Your task to perform on an android device: toggle wifi Image 0: 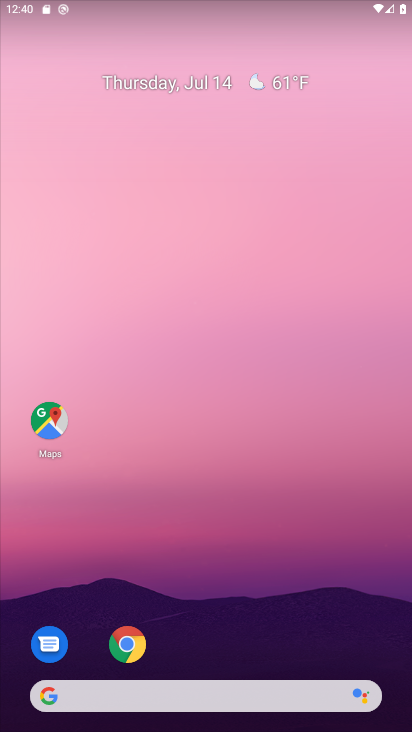
Step 0: drag from (268, 620) to (271, 83)
Your task to perform on an android device: toggle wifi Image 1: 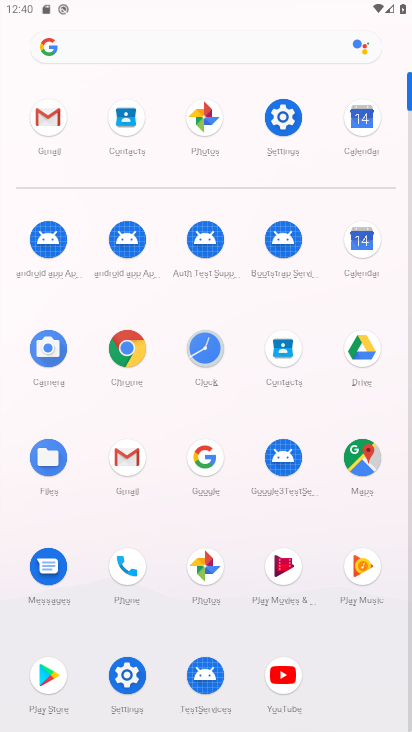
Step 1: click (279, 109)
Your task to perform on an android device: toggle wifi Image 2: 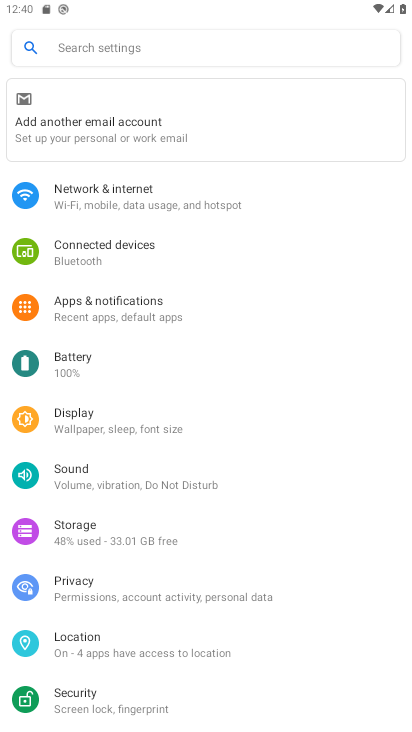
Step 2: click (132, 207)
Your task to perform on an android device: toggle wifi Image 3: 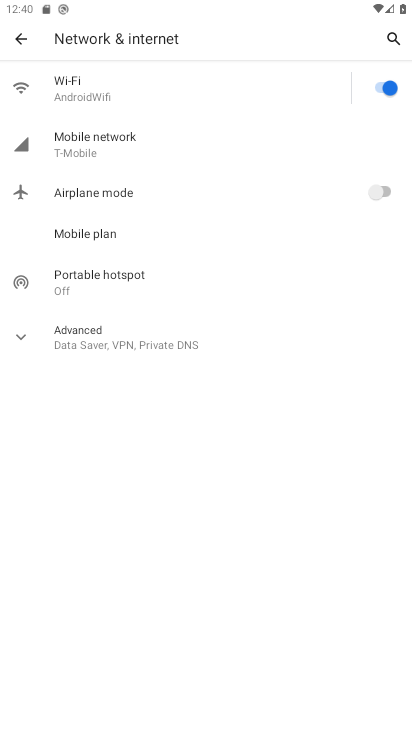
Step 3: click (148, 98)
Your task to perform on an android device: toggle wifi Image 4: 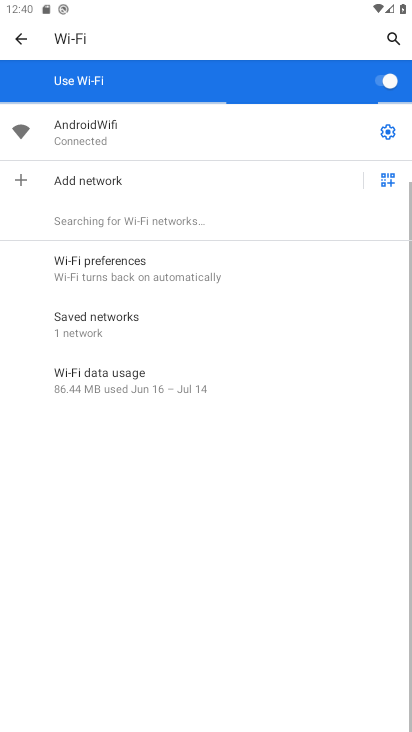
Step 4: click (379, 87)
Your task to perform on an android device: toggle wifi Image 5: 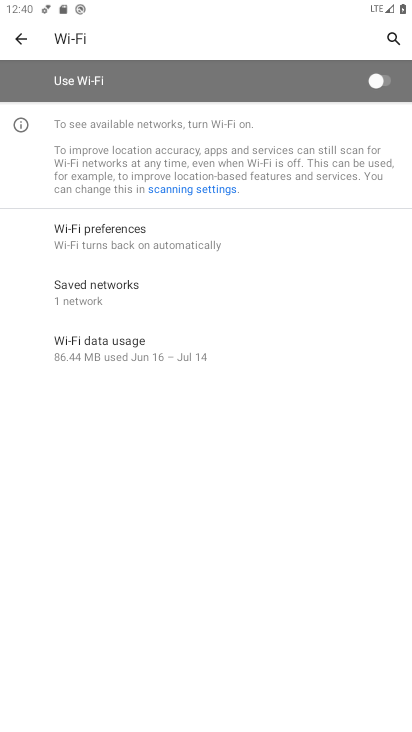
Step 5: task complete